Your task to perform on an android device: What's the price of the LG TV? Image 0: 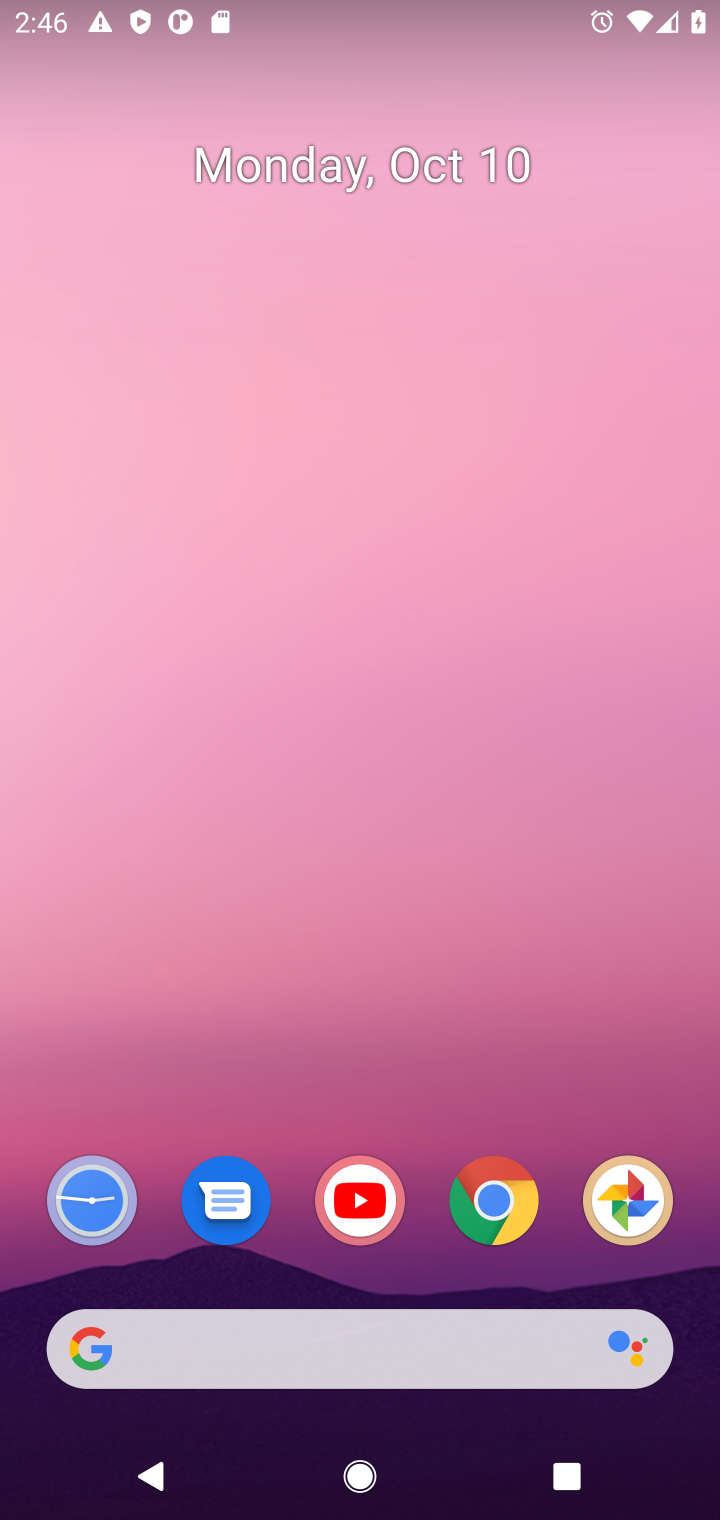
Step 0: click (496, 1191)
Your task to perform on an android device: What's the price of the LG TV? Image 1: 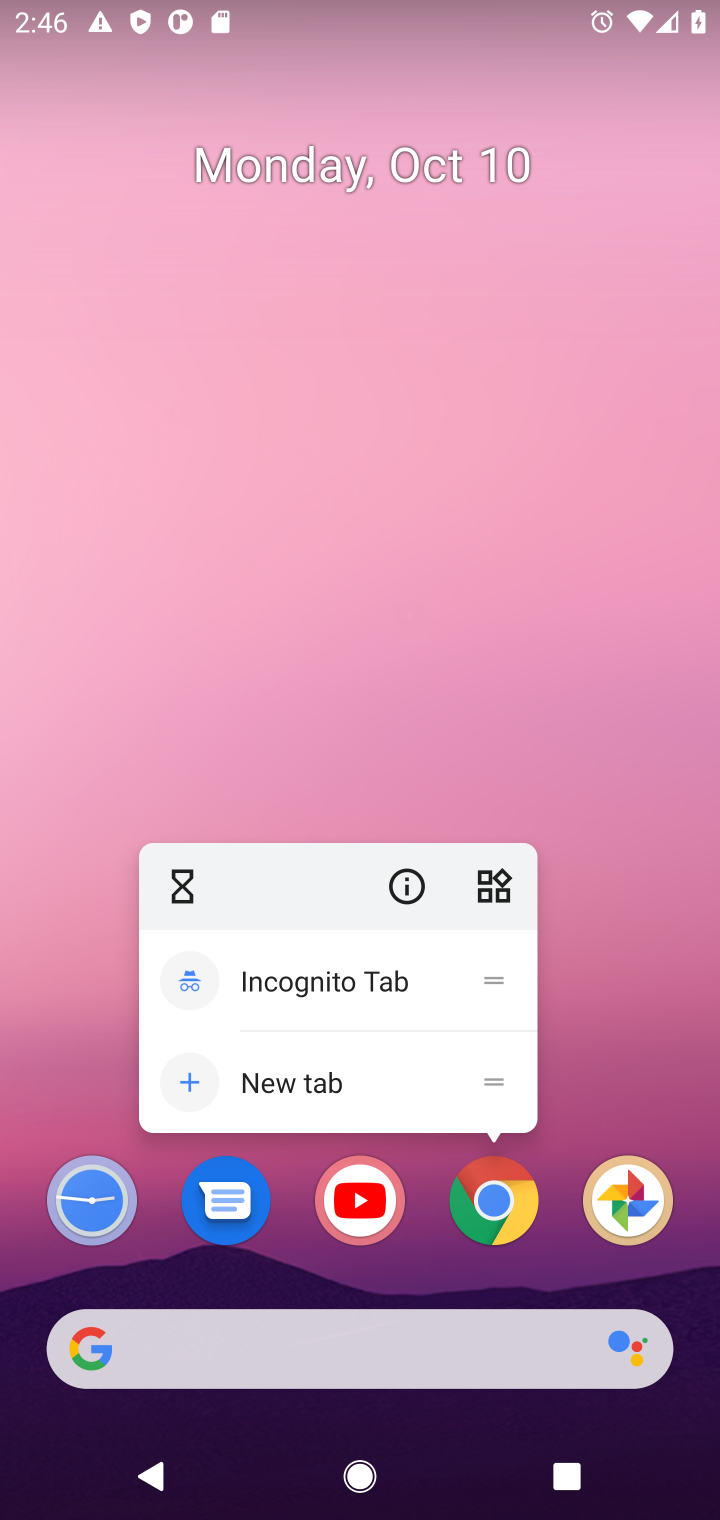
Step 1: click (491, 1212)
Your task to perform on an android device: What's the price of the LG TV? Image 2: 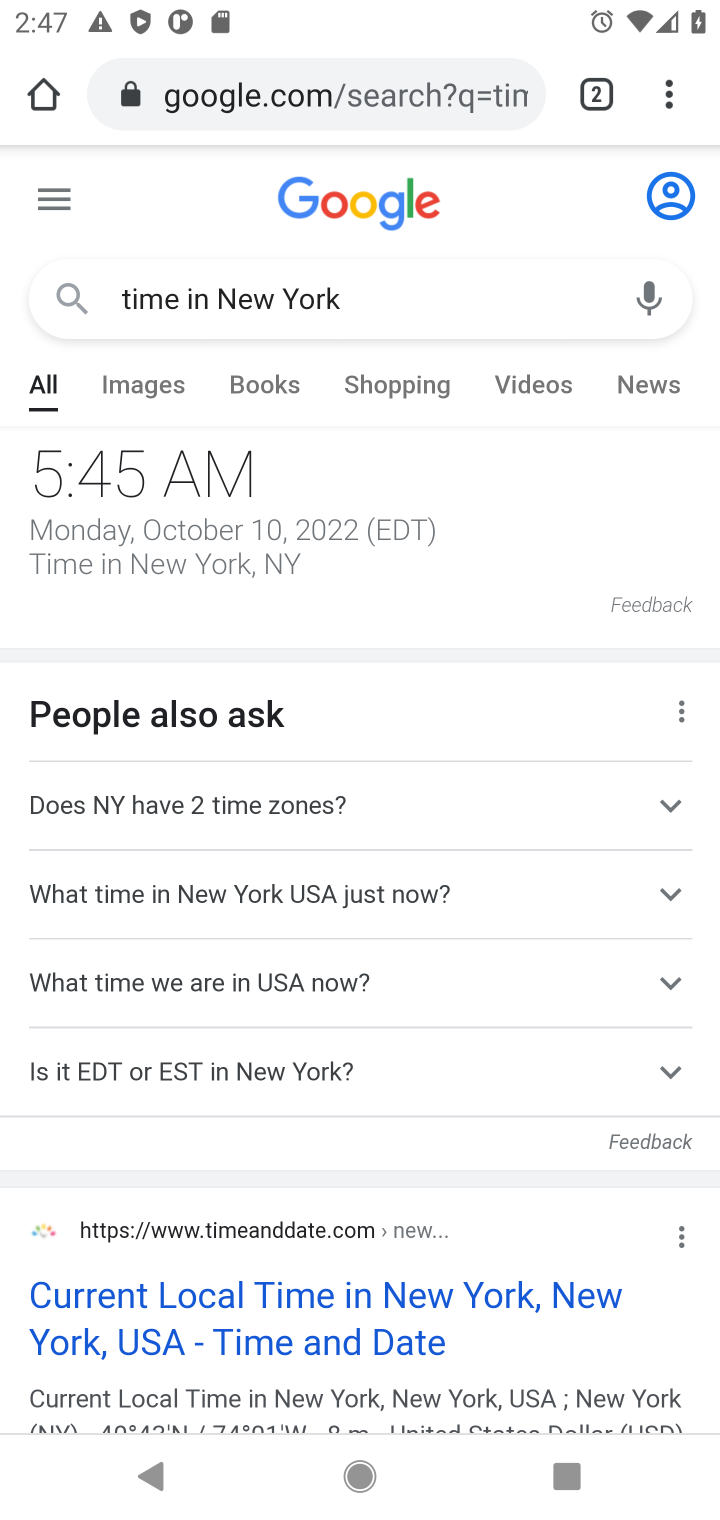
Step 2: click (390, 86)
Your task to perform on an android device: What's the price of the LG TV? Image 3: 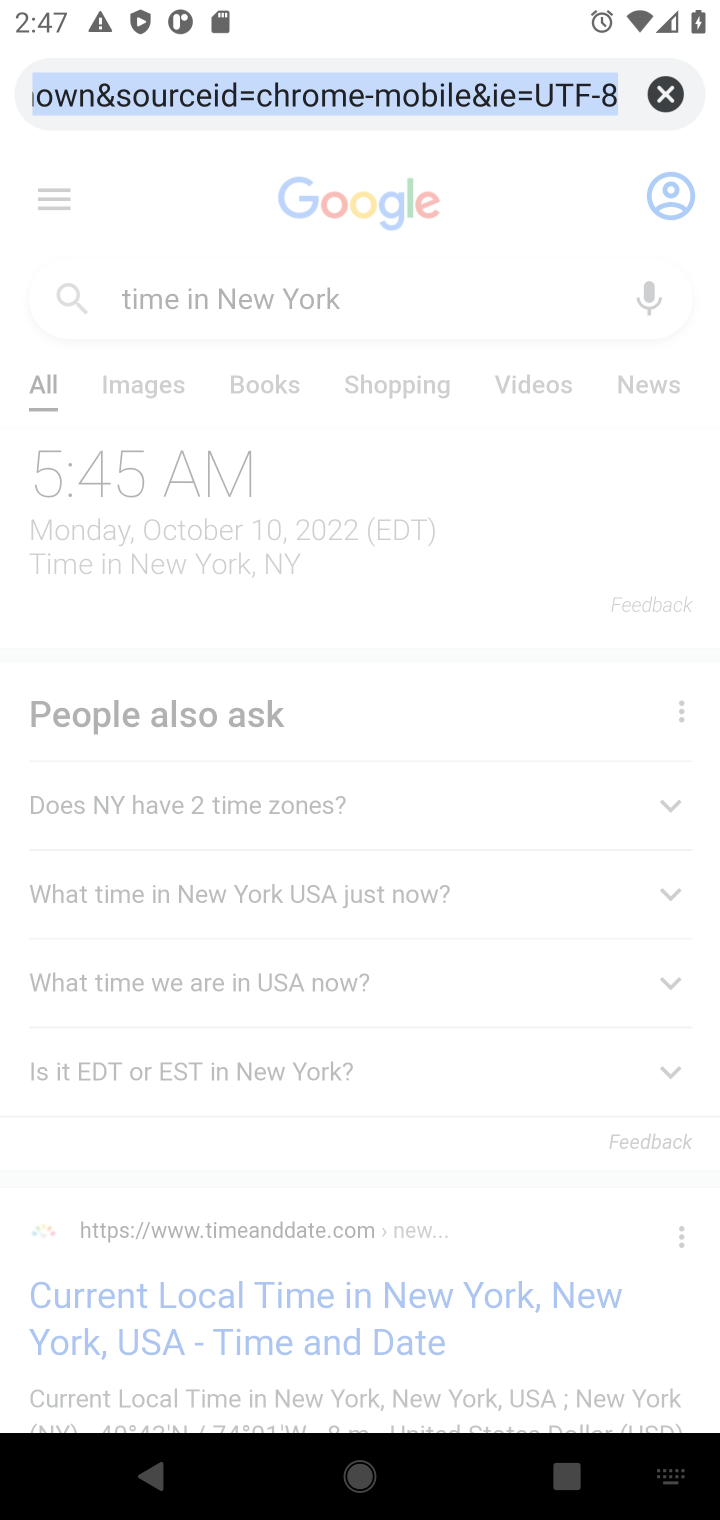
Step 3: type "price of the LG TV"
Your task to perform on an android device: What's the price of the LG TV? Image 4: 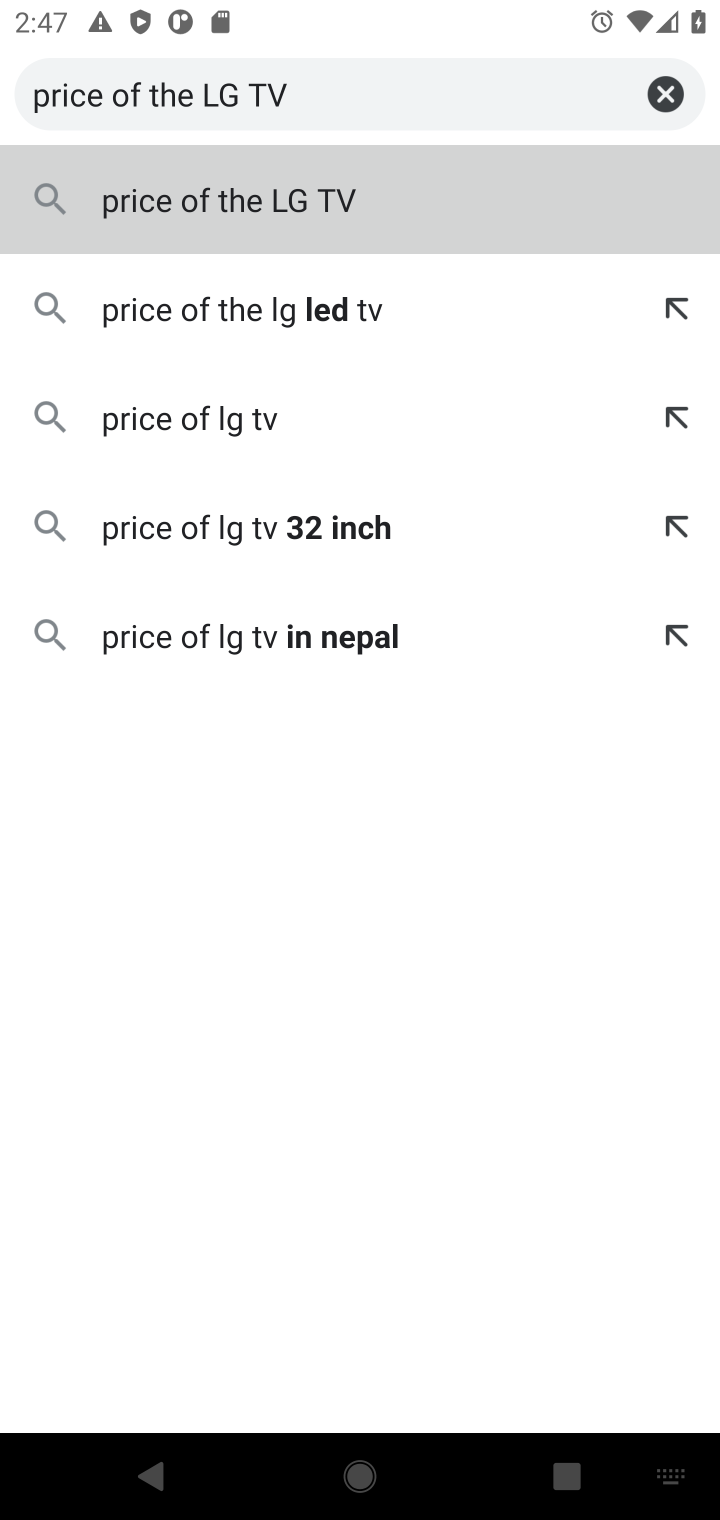
Step 4: type ""
Your task to perform on an android device: What's the price of the LG TV? Image 5: 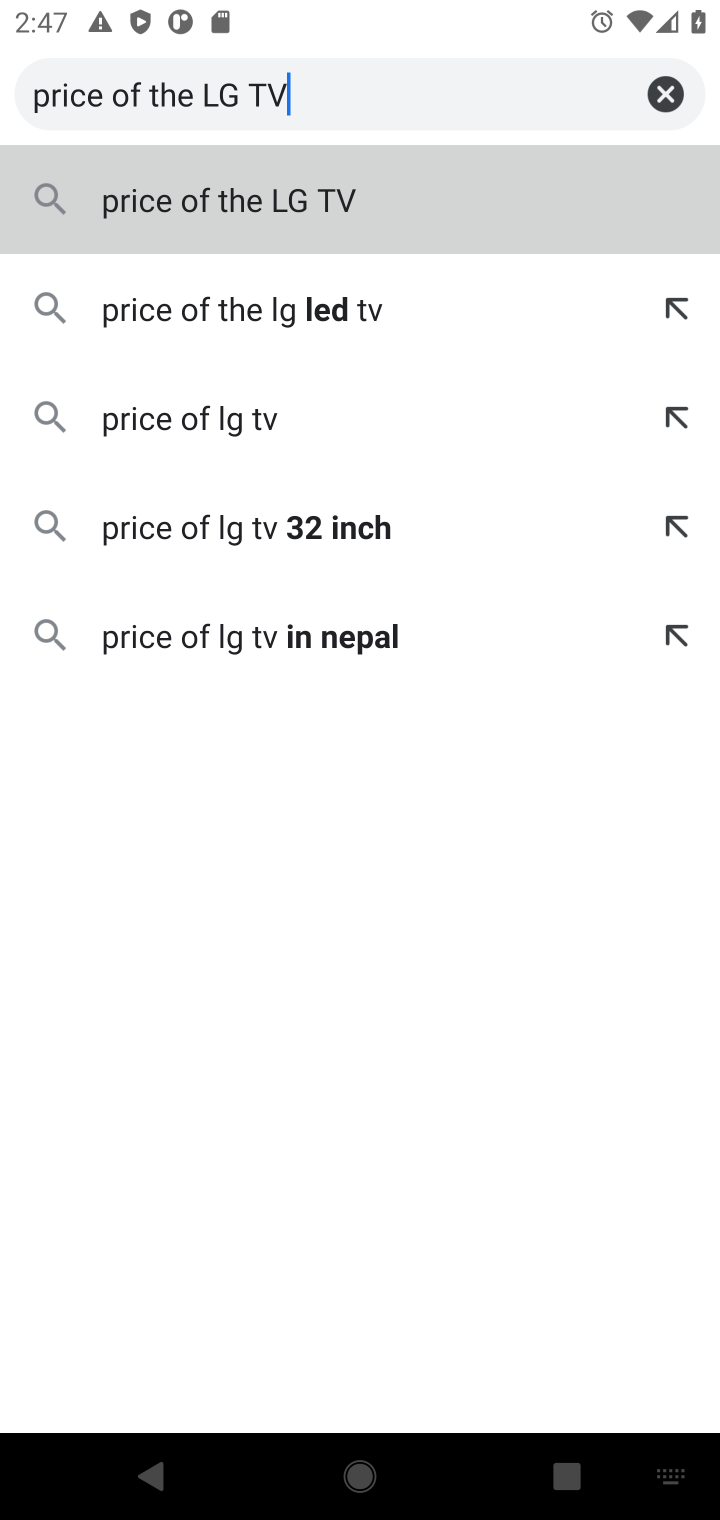
Step 5: click (346, 201)
Your task to perform on an android device: What's the price of the LG TV? Image 6: 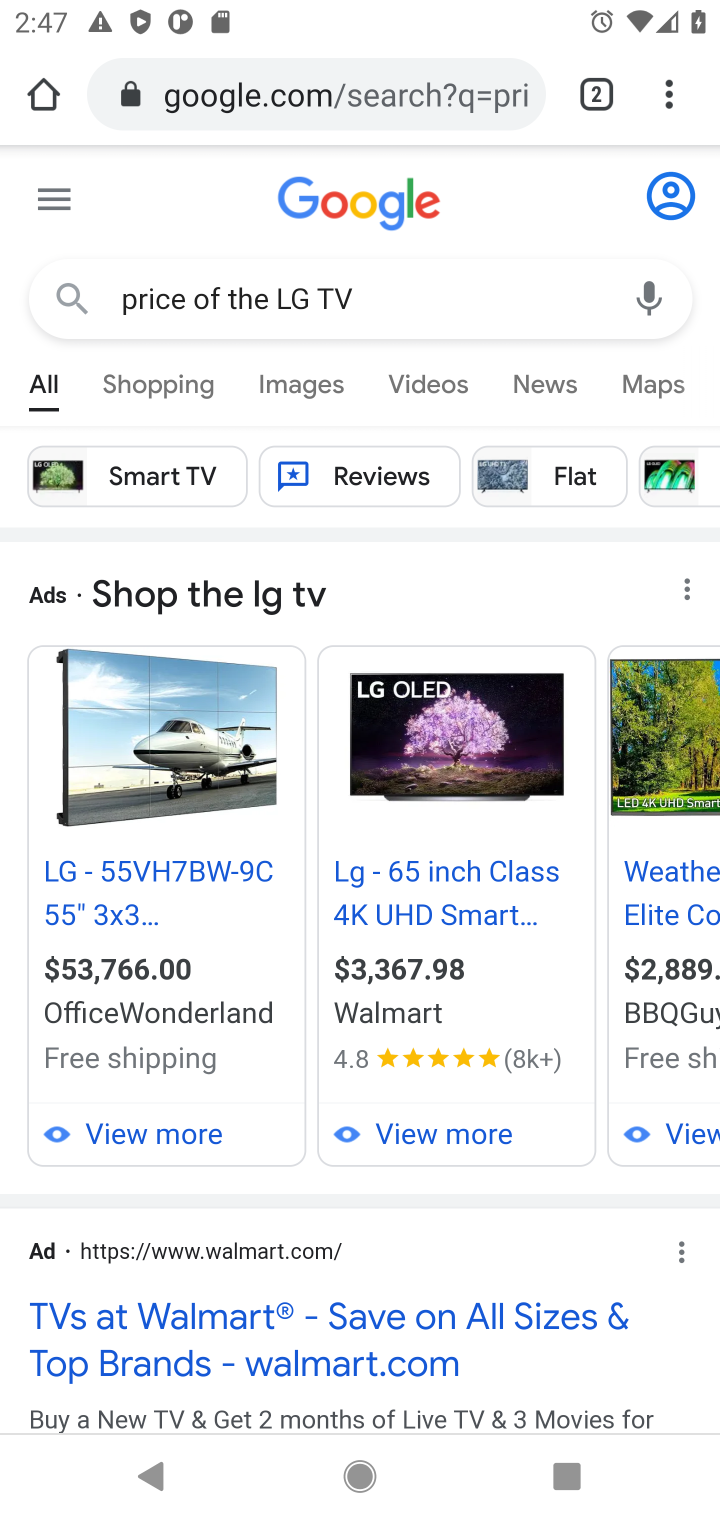
Step 6: click (471, 1187)
Your task to perform on an android device: What's the price of the LG TV? Image 7: 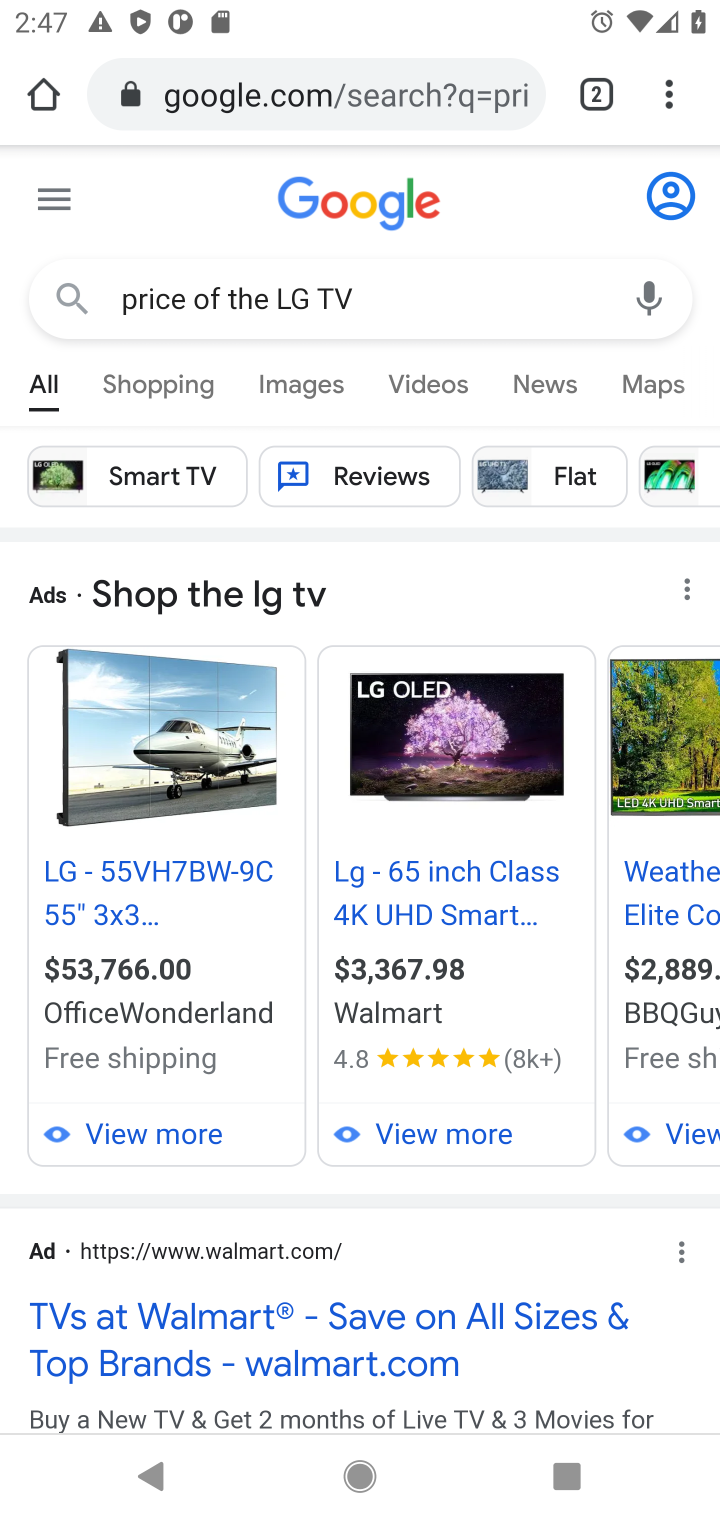
Step 7: task complete